Your task to perform on an android device: turn on the 24-hour format for clock Image 0: 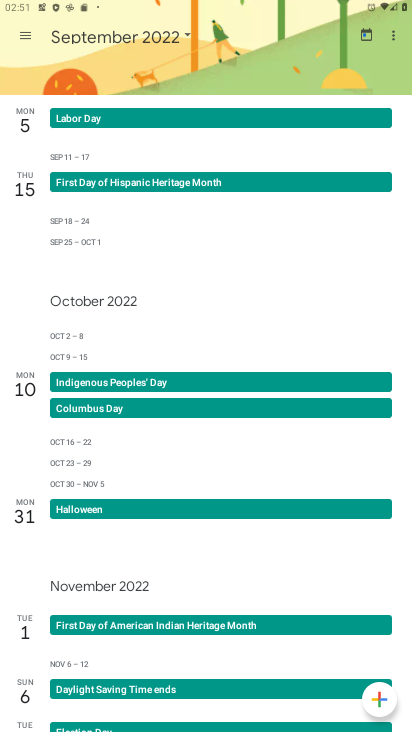
Step 0: press home button
Your task to perform on an android device: turn on the 24-hour format for clock Image 1: 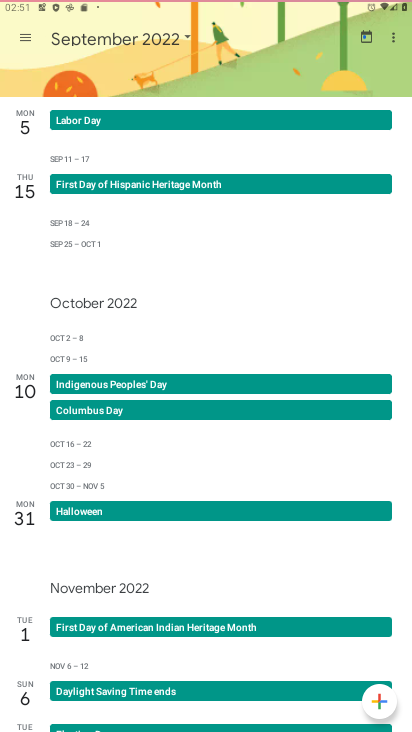
Step 1: press home button
Your task to perform on an android device: turn on the 24-hour format for clock Image 2: 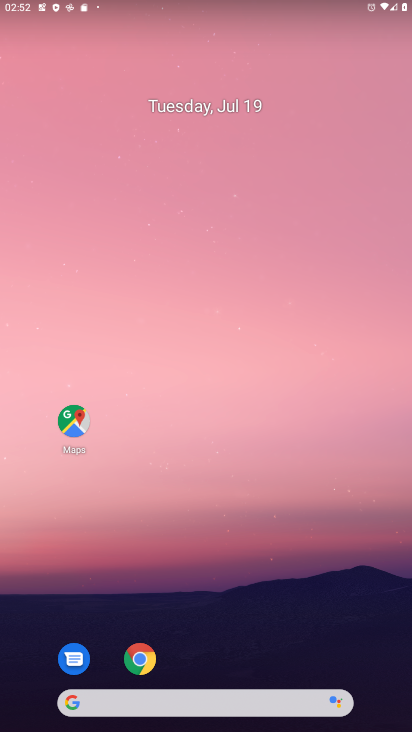
Step 2: click (254, 496)
Your task to perform on an android device: turn on the 24-hour format for clock Image 3: 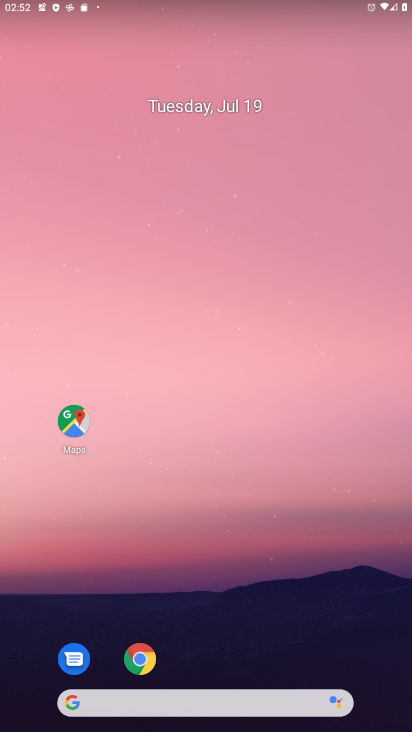
Step 3: drag from (254, 496) to (264, 5)
Your task to perform on an android device: turn on the 24-hour format for clock Image 4: 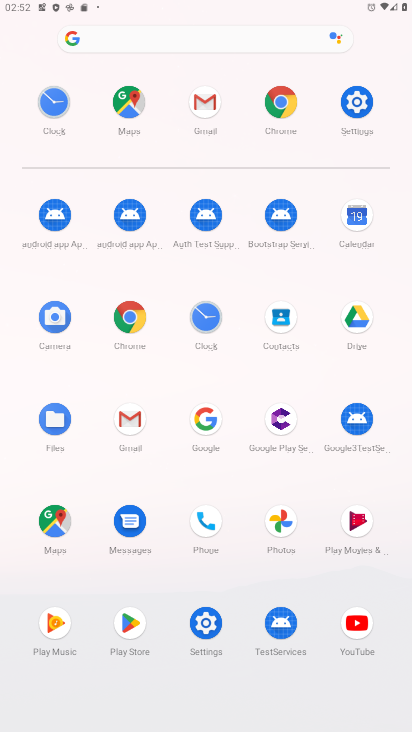
Step 4: click (205, 326)
Your task to perform on an android device: turn on the 24-hour format for clock Image 5: 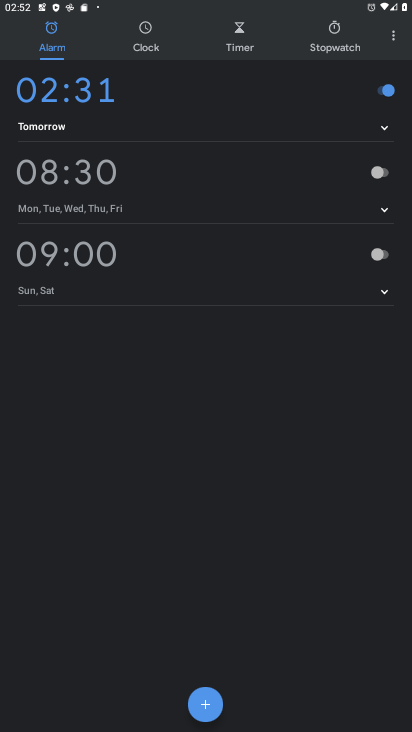
Step 5: click (387, 49)
Your task to perform on an android device: turn on the 24-hour format for clock Image 6: 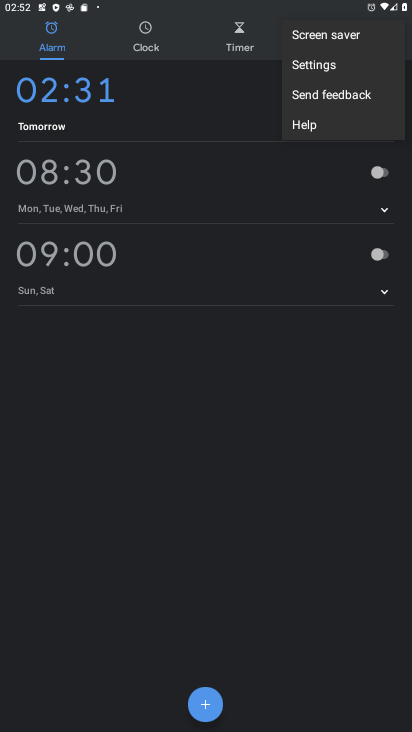
Step 6: click (358, 68)
Your task to perform on an android device: turn on the 24-hour format for clock Image 7: 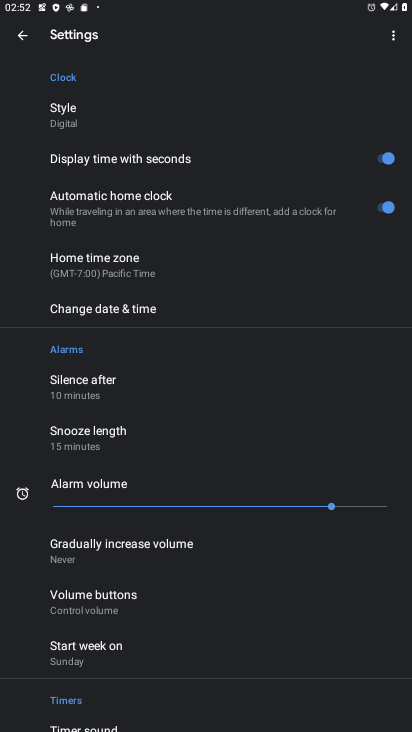
Step 7: click (75, 304)
Your task to perform on an android device: turn on the 24-hour format for clock Image 8: 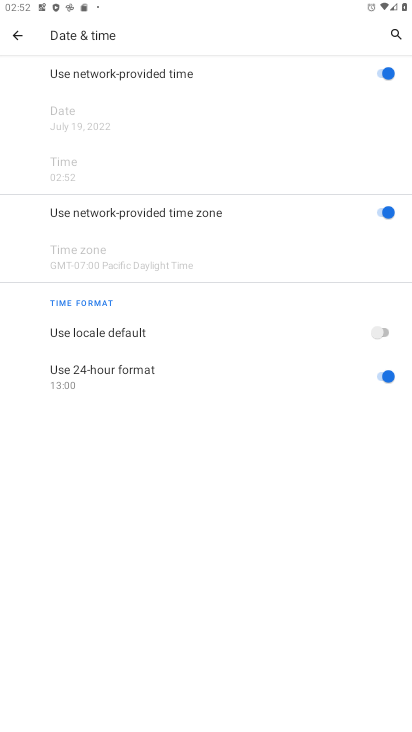
Step 8: task complete